Your task to perform on an android device: Go to Reddit.com Image 0: 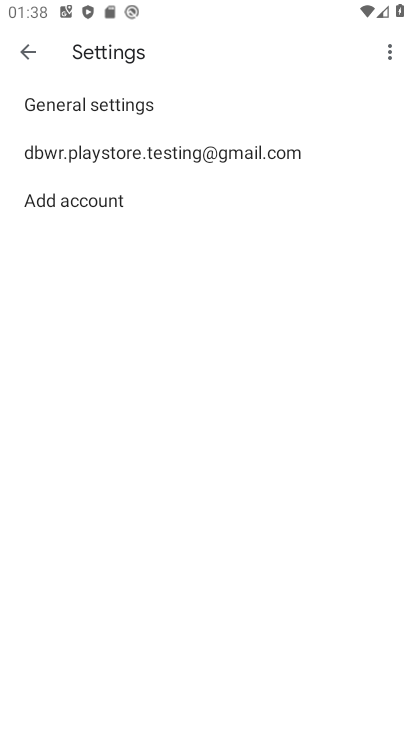
Step 0: press back button
Your task to perform on an android device: Go to Reddit.com Image 1: 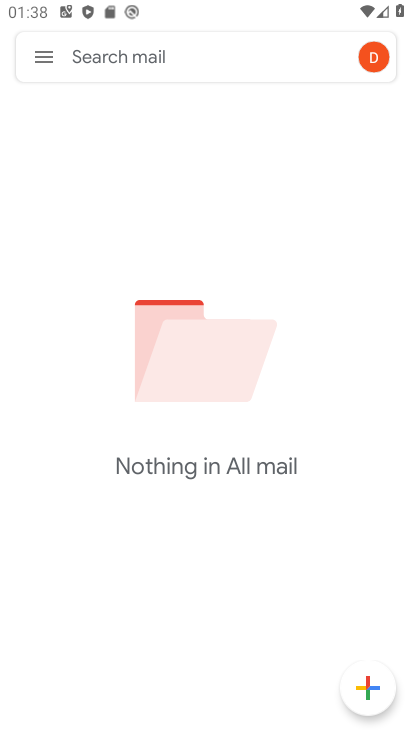
Step 1: press back button
Your task to perform on an android device: Go to Reddit.com Image 2: 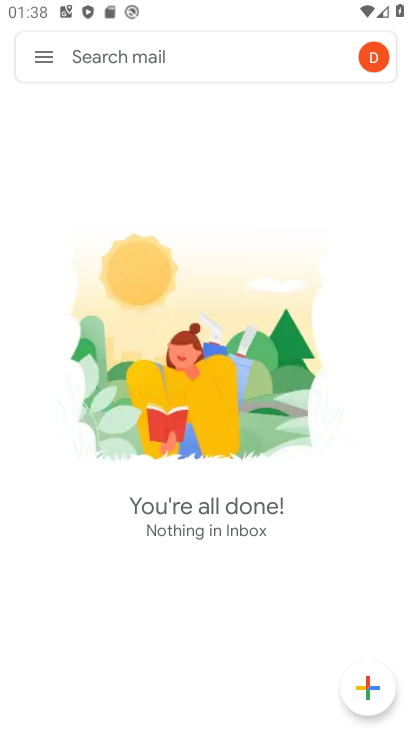
Step 2: press back button
Your task to perform on an android device: Go to Reddit.com Image 3: 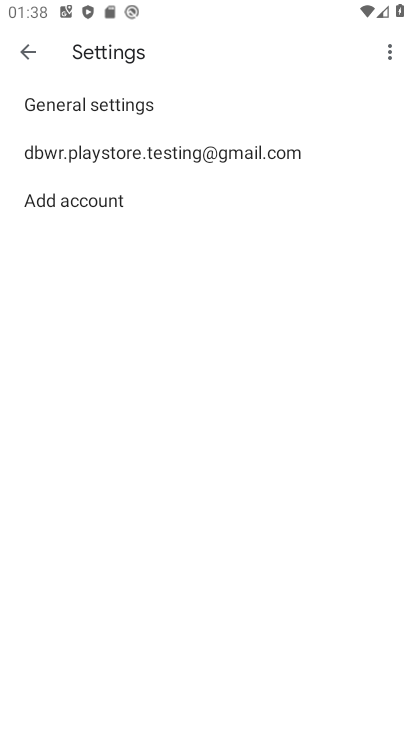
Step 3: press home button
Your task to perform on an android device: Go to Reddit.com Image 4: 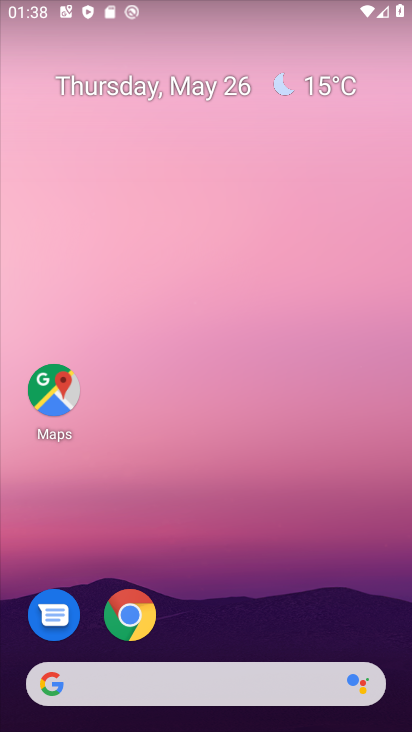
Step 4: click (130, 621)
Your task to perform on an android device: Go to Reddit.com Image 5: 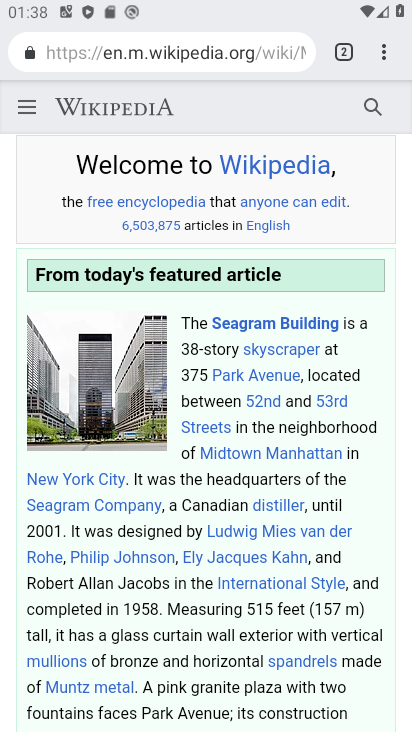
Step 5: click (343, 54)
Your task to perform on an android device: Go to Reddit.com Image 6: 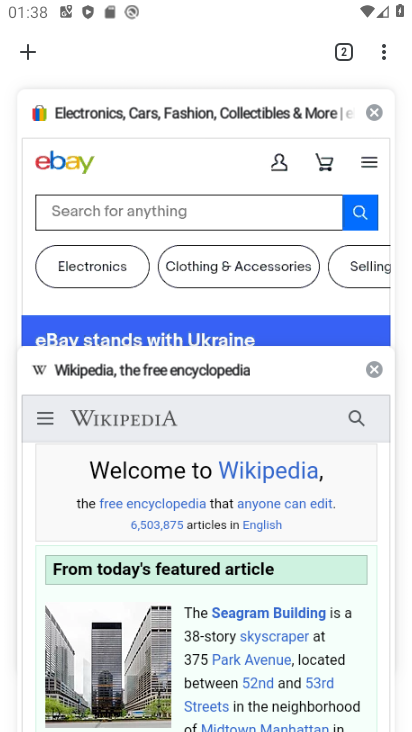
Step 6: click (12, 38)
Your task to perform on an android device: Go to Reddit.com Image 7: 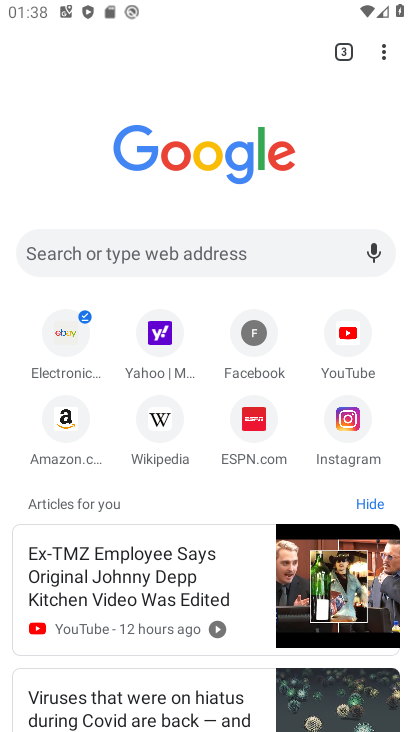
Step 7: click (106, 250)
Your task to perform on an android device: Go to Reddit.com Image 8: 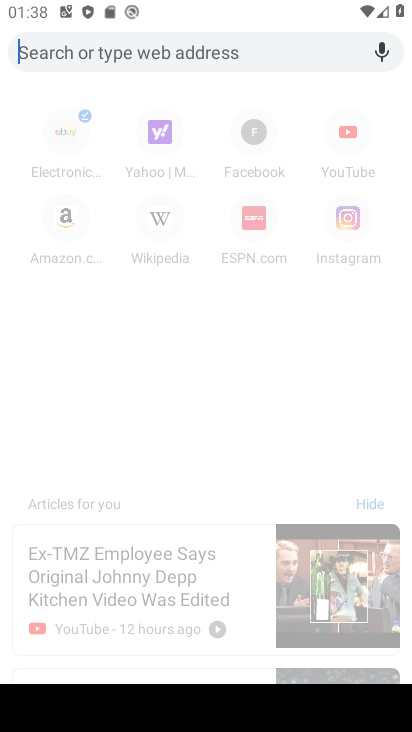
Step 8: type "reddit.com"
Your task to perform on an android device: Go to Reddit.com Image 9: 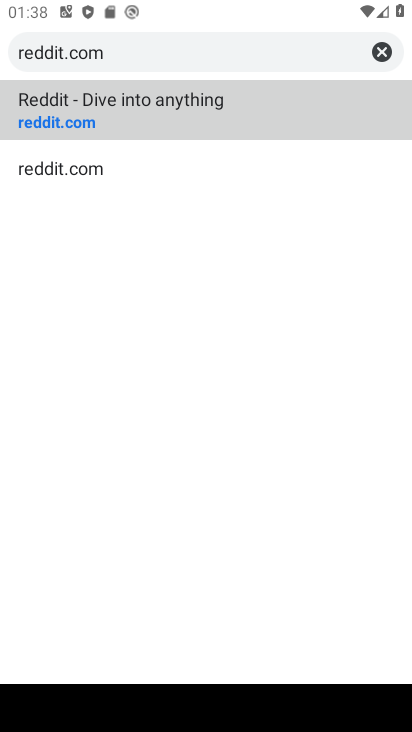
Step 9: click (85, 111)
Your task to perform on an android device: Go to Reddit.com Image 10: 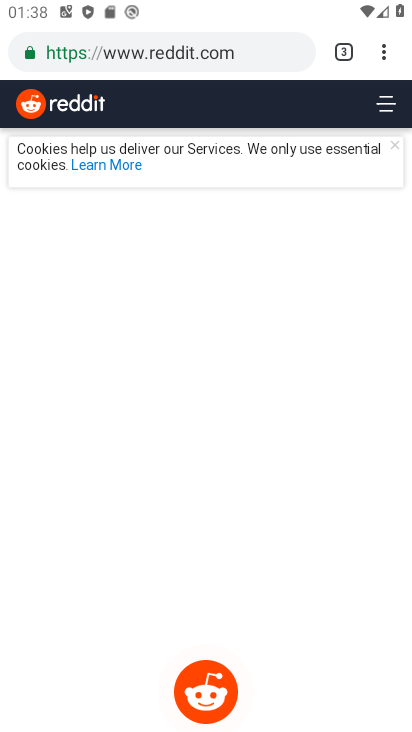
Step 10: task complete